Your task to perform on an android device: Open the Play Movies app and select the watchlist tab. Image 0: 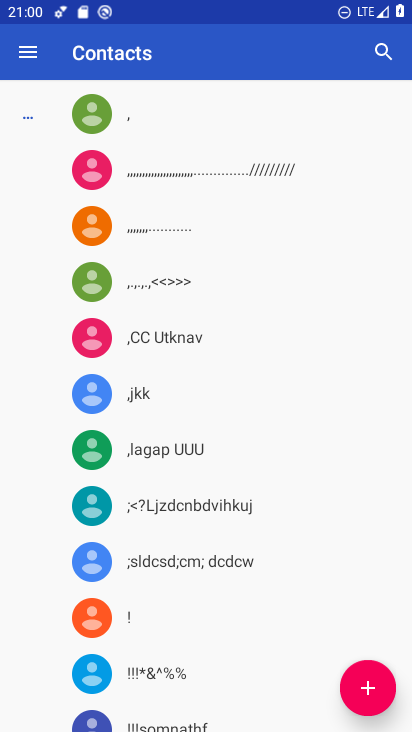
Step 0: press home button
Your task to perform on an android device: Open the Play Movies app and select the watchlist tab. Image 1: 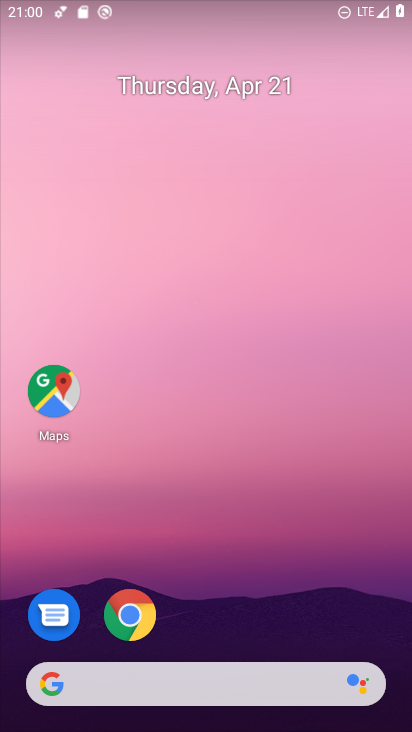
Step 1: drag from (177, 645) to (265, 183)
Your task to perform on an android device: Open the Play Movies app and select the watchlist tab. Image 2: 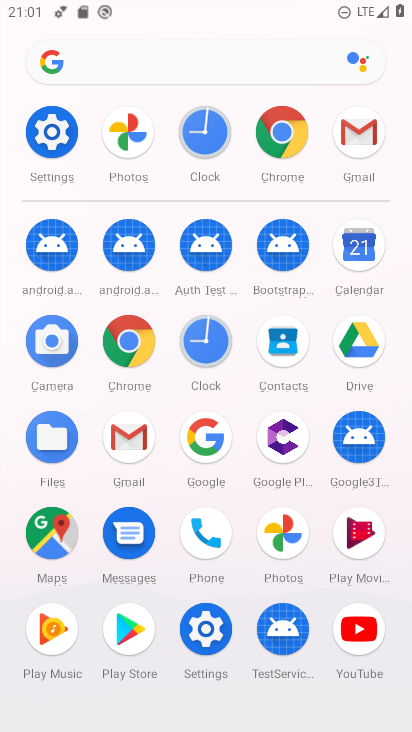
Step 2: click (357, 537)
Your task to perform on an android device: Open the Play Movies app and select the watchlist tab. Image 3: 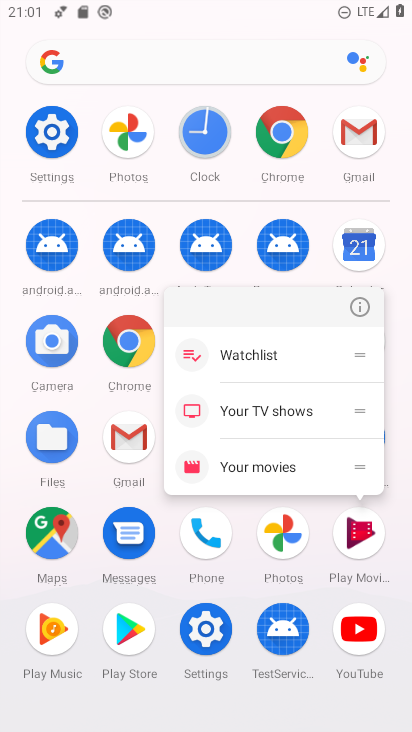
Step 3: click (350, 310)
Your task to perform on an android device: Open the Play Movies app and select the watchlist tab. Image 4: 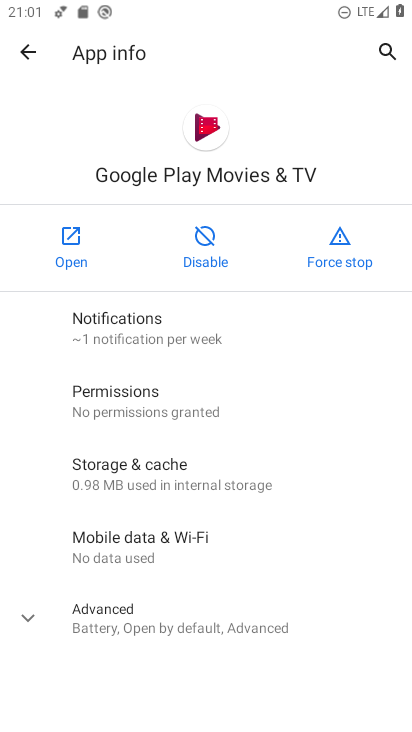
Step 4: click (70, 262)
Your task to perform on an android device: Open the Play Movies app and select the watchlist tab. Image 5: 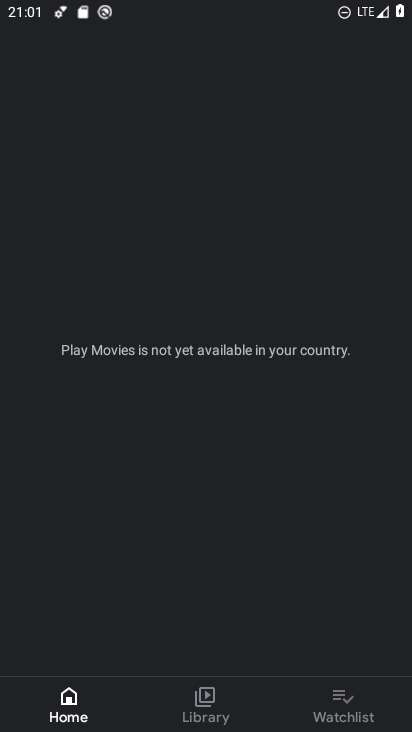
Step 5: click (229, 445)
Your task to perform on an android device: Open the Play Movies app and select the watchlist tab. Image 6: 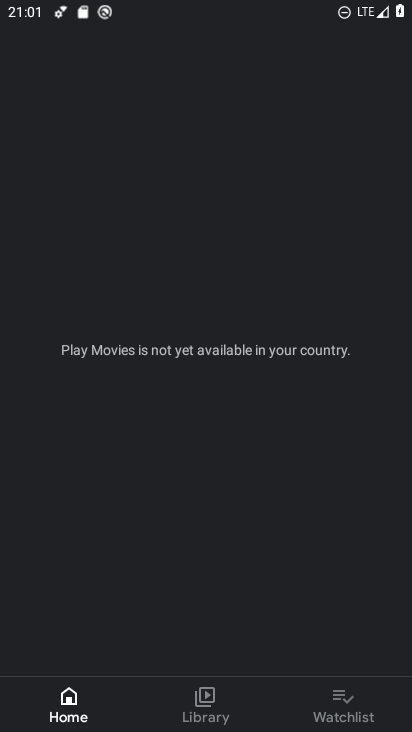
Step 6: click (333, 707)
Your task to perform on an android device: Open the Play Movies app and select the watchlist tab. Image 7: 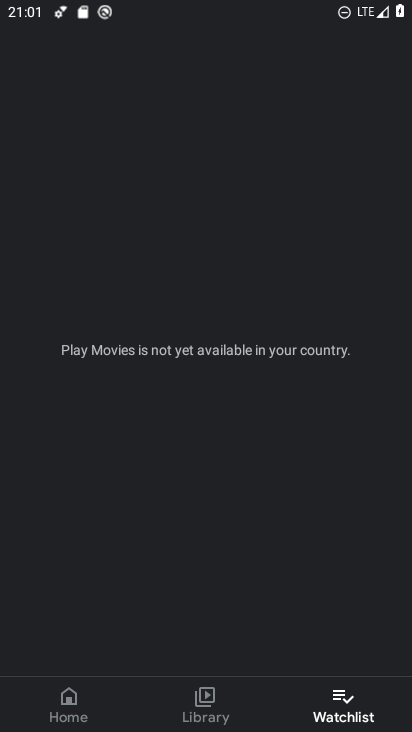
Step 7: drag from (169, 627) to (281, 316)
Your task to perform on an android device: Open the Play Movies app and select the watchlist tab. Image 8: 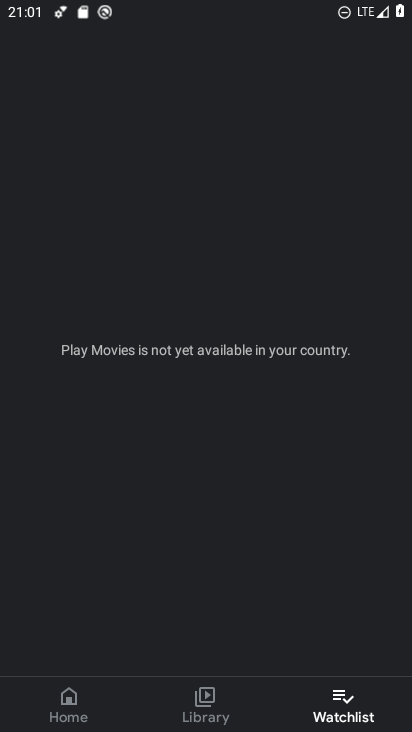
Step 8: click (237, 452)
Your task to perform on an android device: Open the Play Movies app and select the watchlist tab. Image 9: 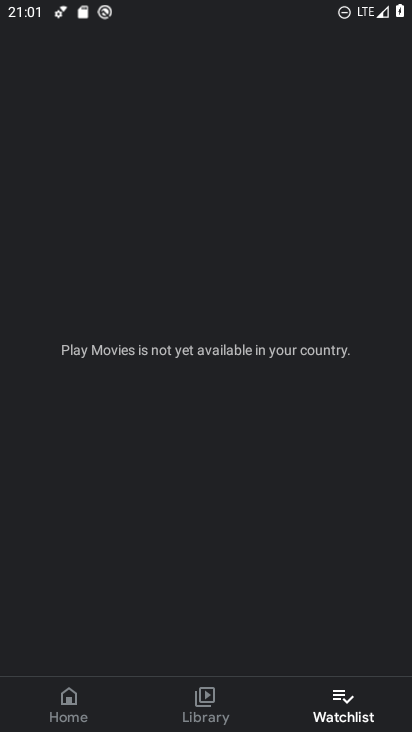
Step 9: click (251, 490)
Your task to perform on an android device: Open the Play Movies app and select the watchlist tab. Image 10: 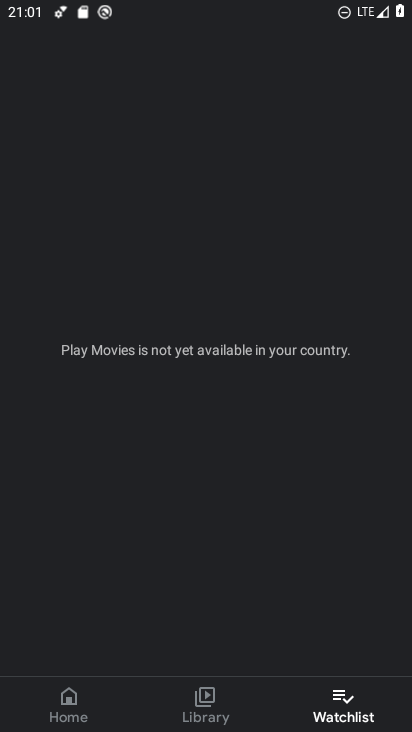
Step 10: task complete